Your task to perform on an android device: remove spam from my inbox in the gmail app Image 0: 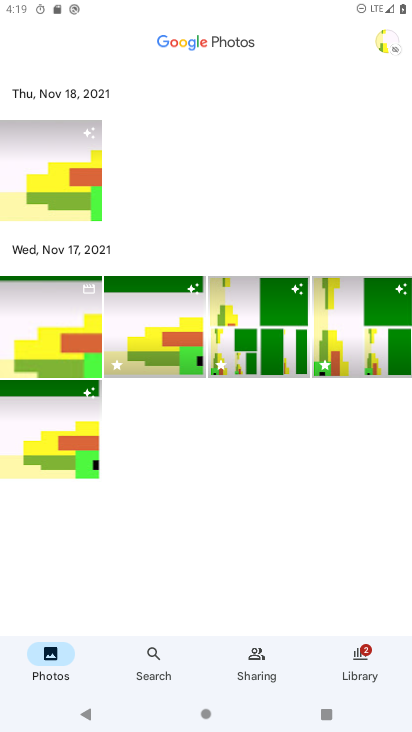
Step 0: press home button
Your task to perform on an android device: remove spam from my inbox in the gmail app Image 1: 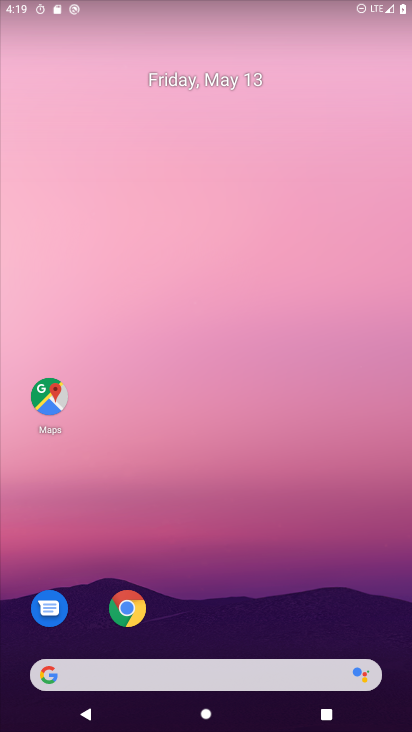
Step 1: drag from (295, 592) to (316, 42)
Your task to perform on an android device: remove spam from my inbox in the gmail app Image 2: 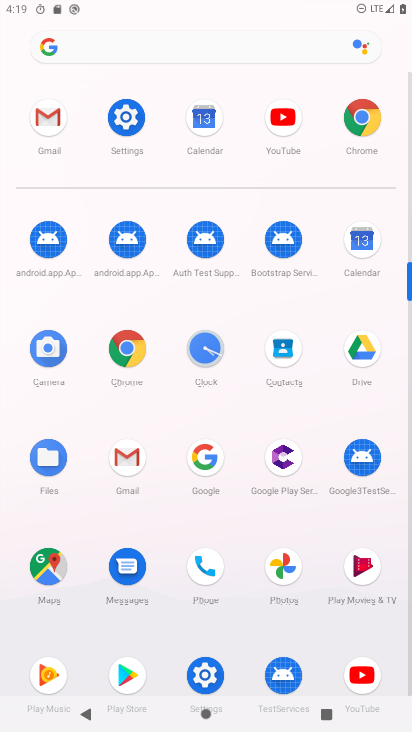
Step 2: click (129, 466)
Your task to perform on an android device: remove spam from my inbox in the gmail app Image 3: 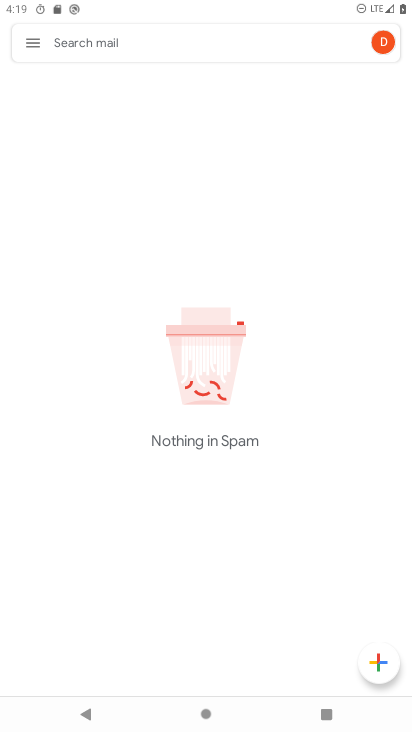
Step 3: click (31, 32)
Your task to perform on an android device: remove spam from my inbox in the gmail app Image 4: 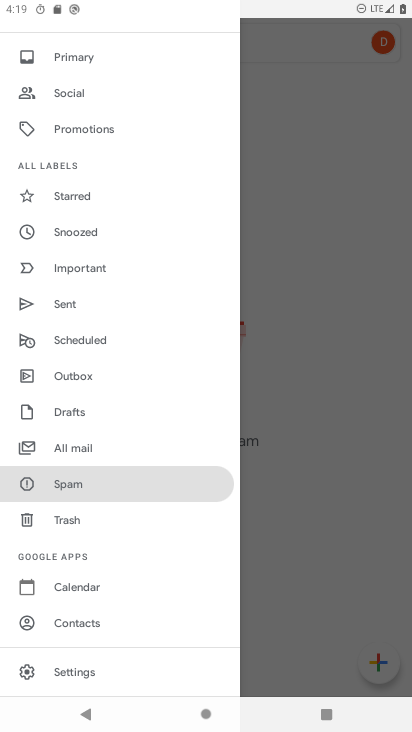
Step 4: click (84, 478)
Your task to perform on an android device: remove spam from my inbox in the gmail app Image 5: 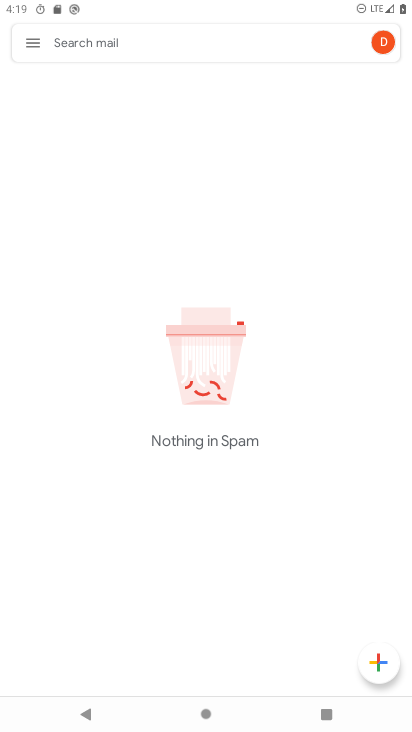
Step 5: task complete